Your task to perform on an android device: Look up the best rated bike seats on Target Image 0: 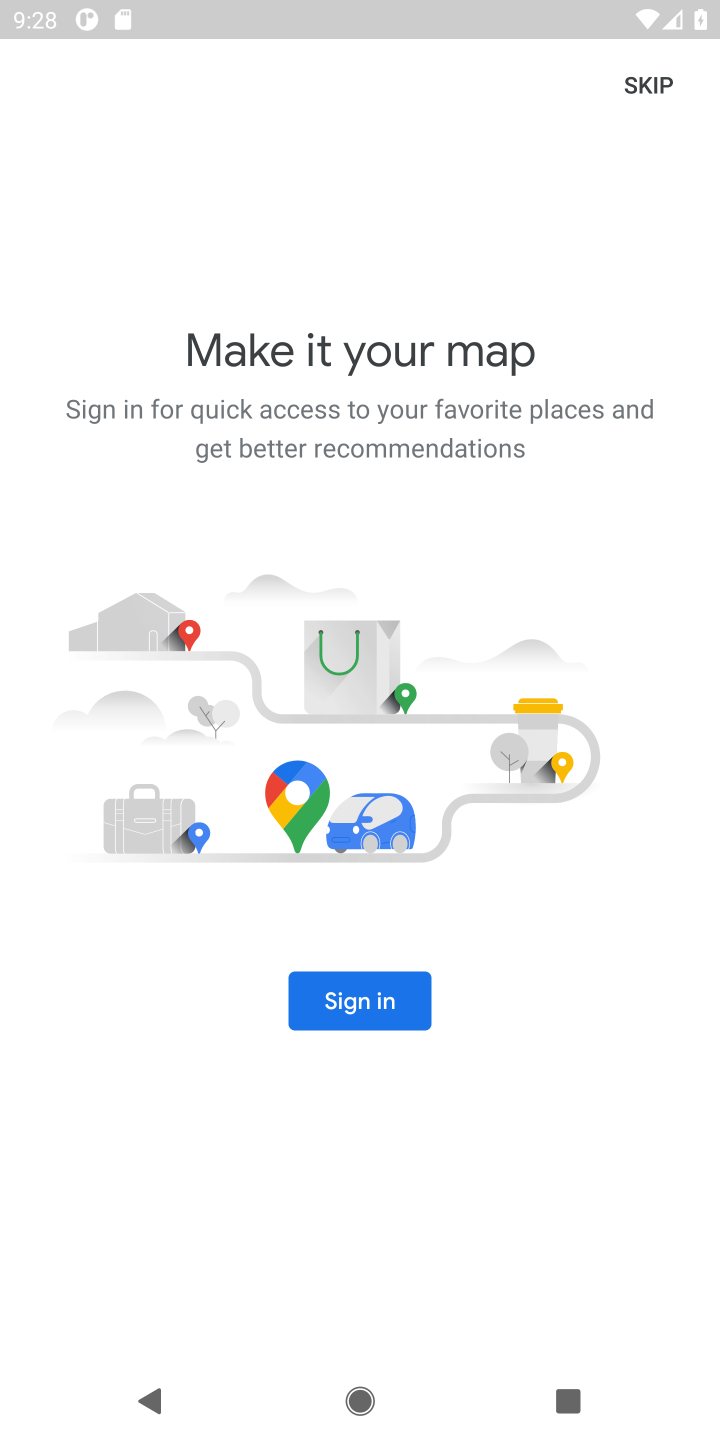
Step 0: press home button
Your task to perform on an android device: Look up the best rated bike seats on Target Image 1: 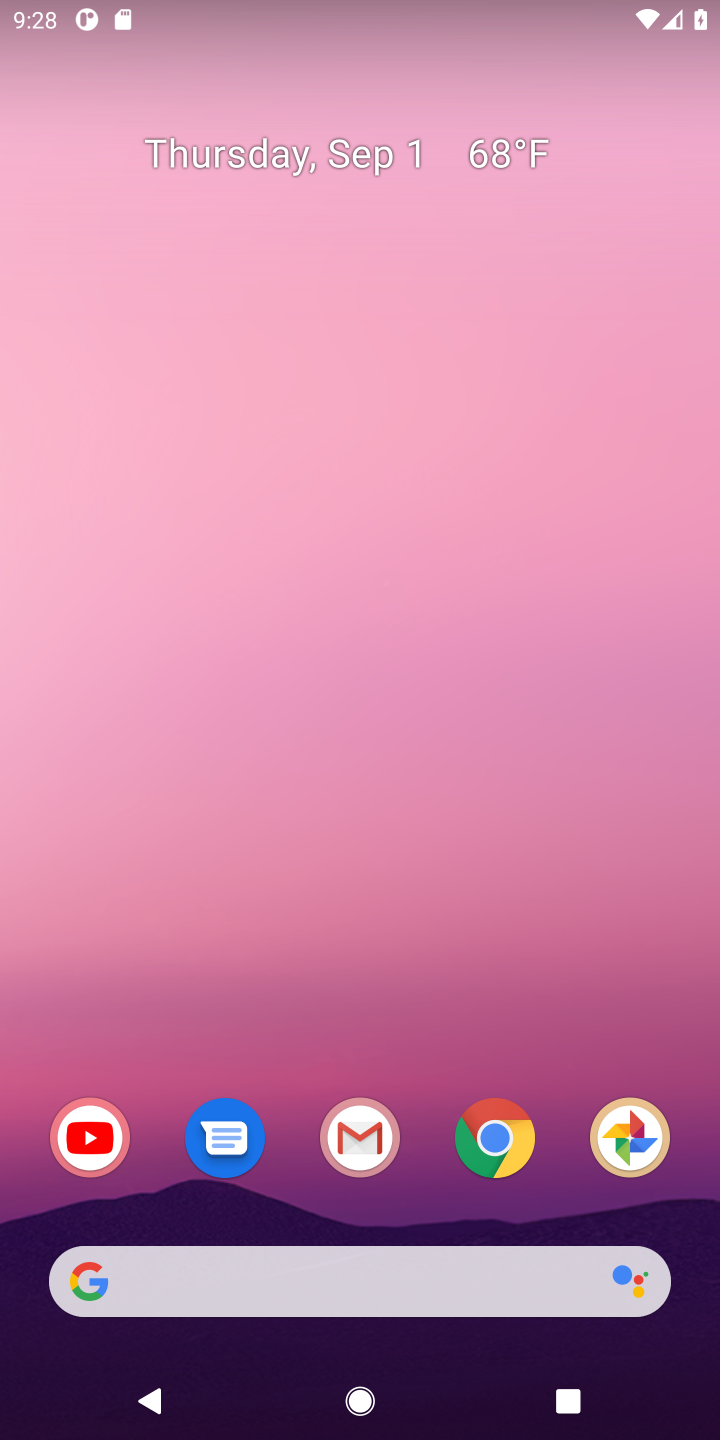
Step 1: click (480, 1147)
Your task to perform on an android device: Look up the best rated bike seats on Target Image 2: 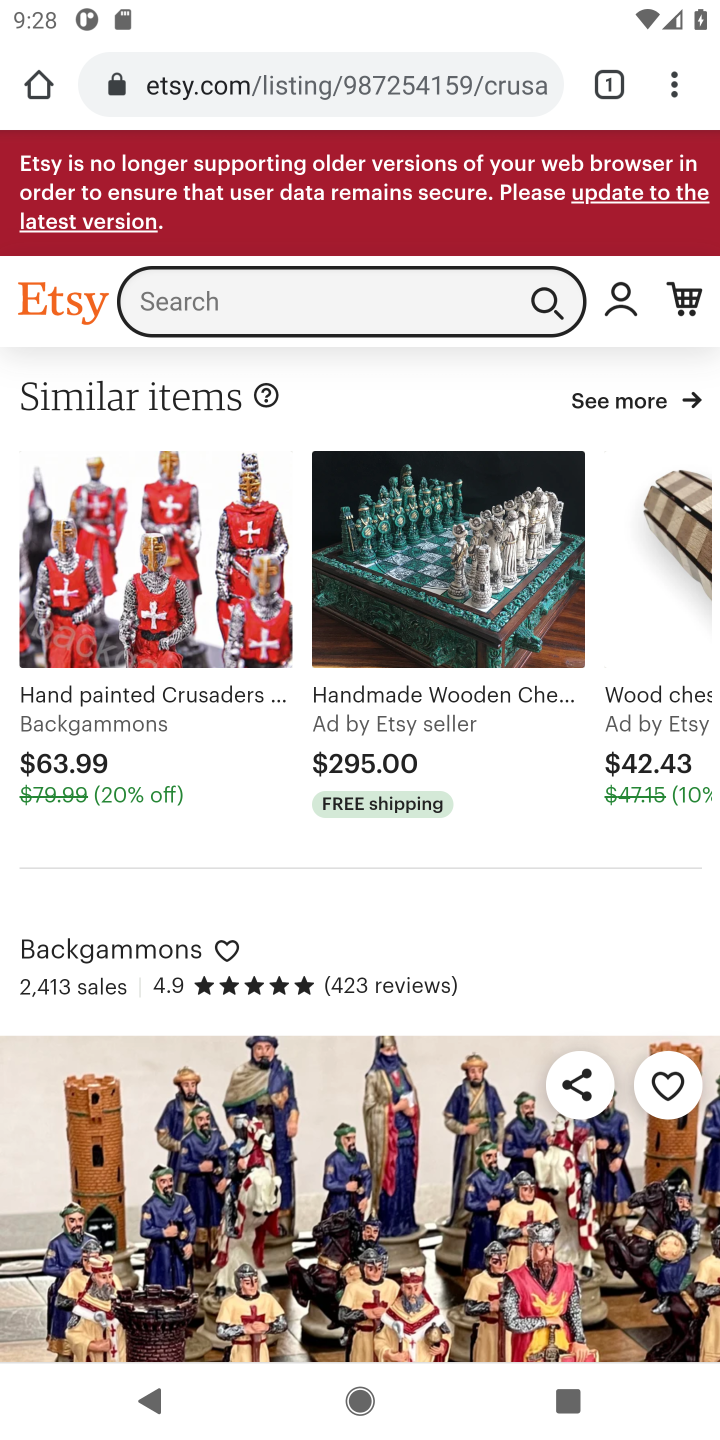
Step 2: click (273, 75)
Your task to perform on an android device: Look up the best rated bike seats on Target Image 3: 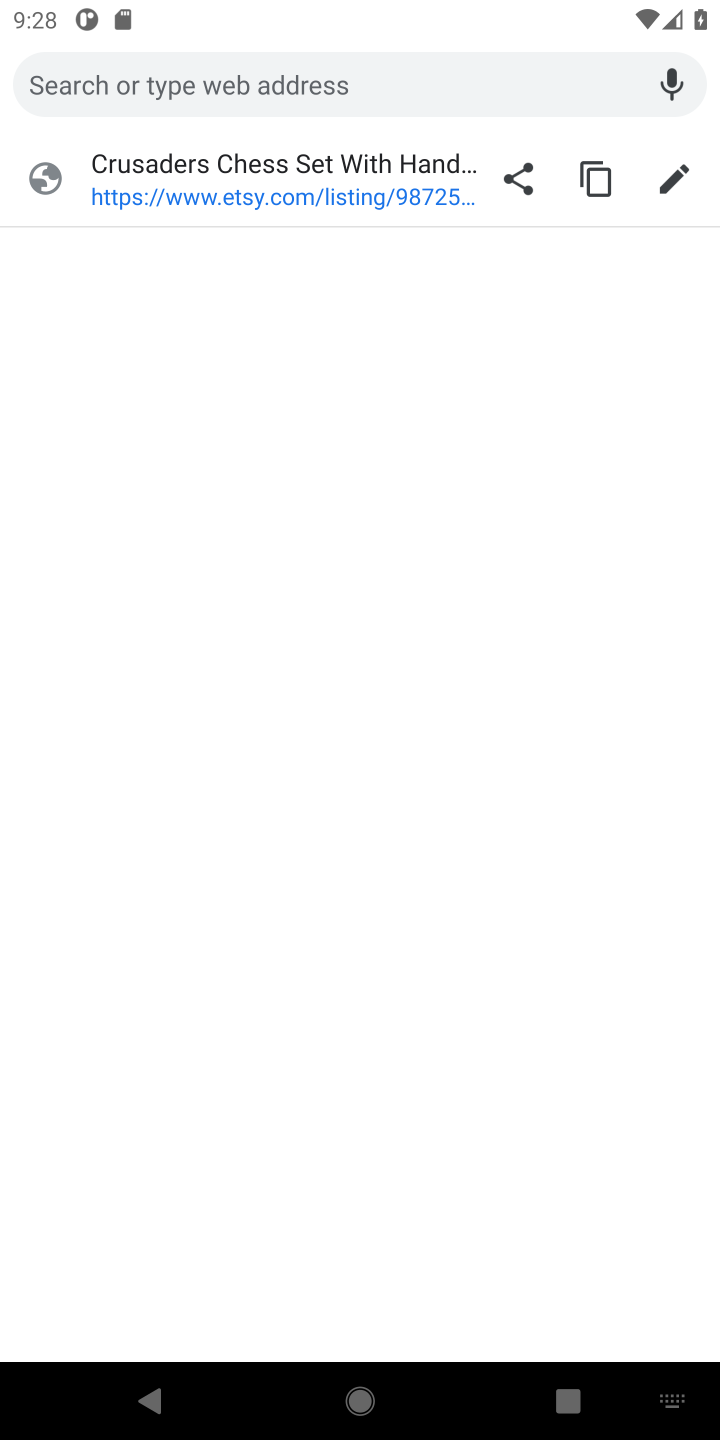
Step 3: click (439, 77)
Your task to perform on an android device: Look up the best rated bike seats on Target Image 4: 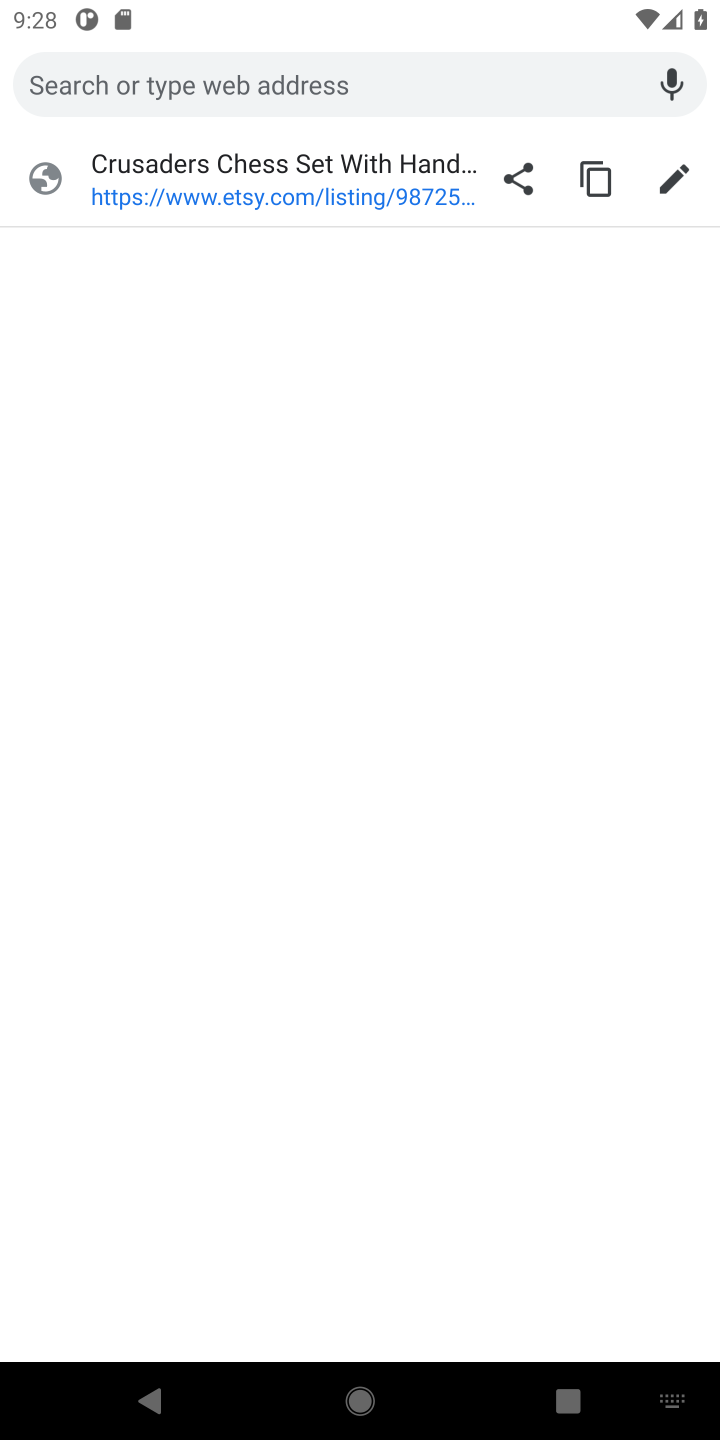
Step 4: type "the best rated bike seats on Target"
Your task to perform on an android device: Look up the best rated bike seats on Target Image 5: 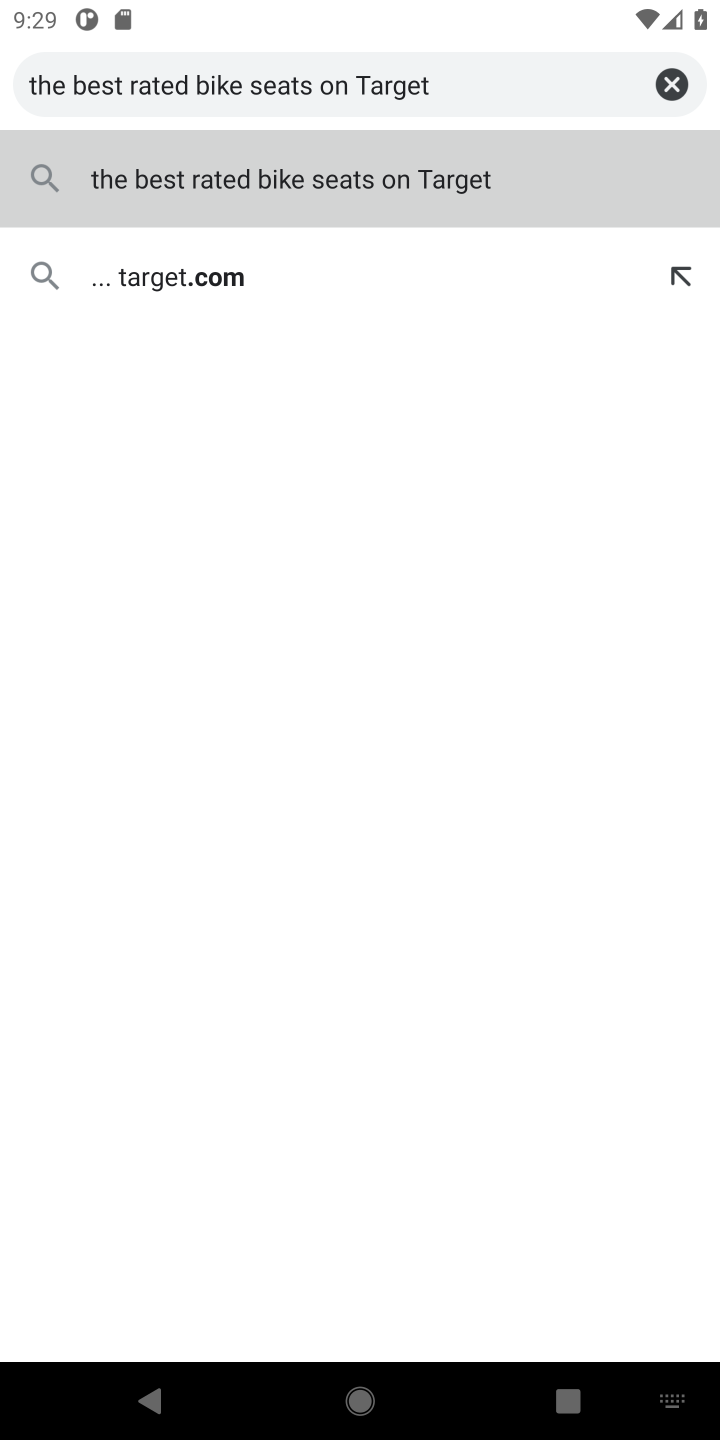
Step 5: click (203, 271)
Your task to perform on an android device: Look up the best rated bike seats on Target Image 6: 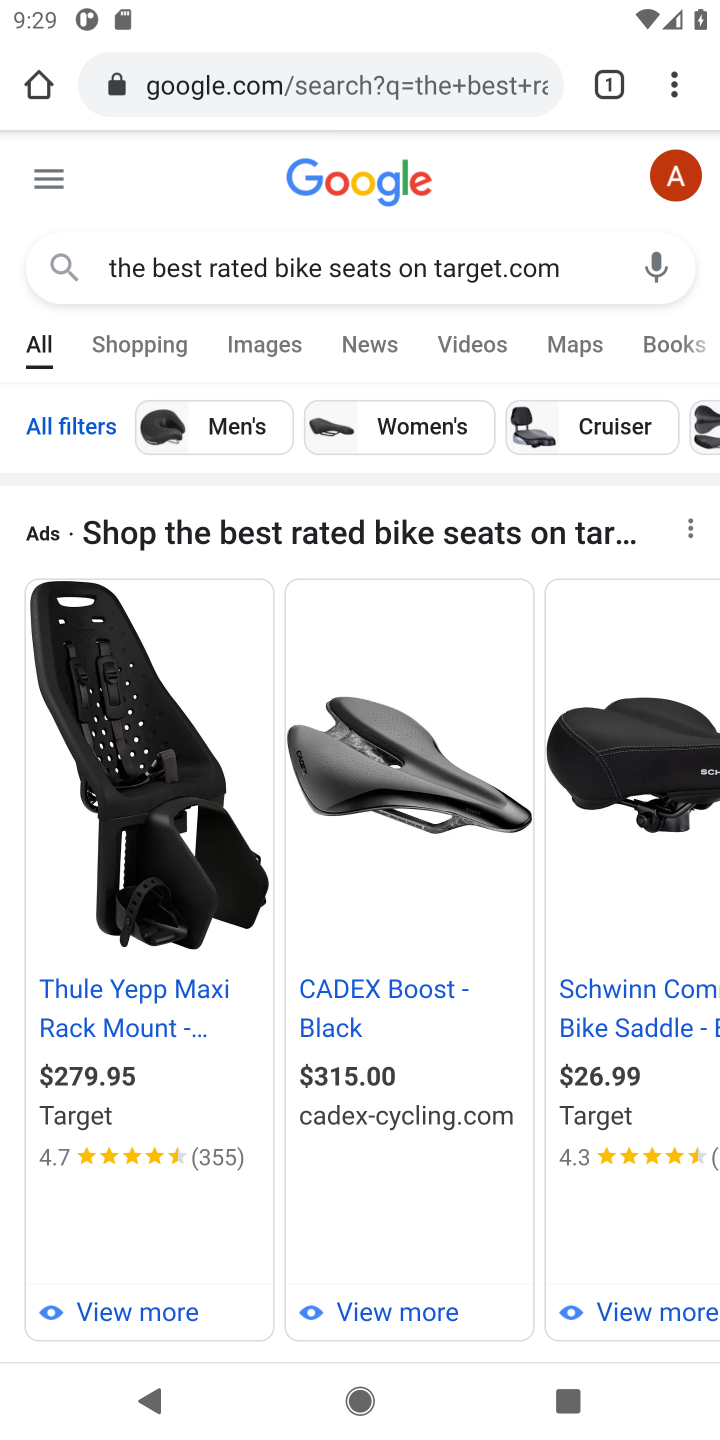
Step 6: task complete